Your task to perform on an android device: Clear the shopping cart on ebay.com. Search for "apple airpods" on ebay.com, select the first entry, add it to the cart, then select checkout. Image 0: 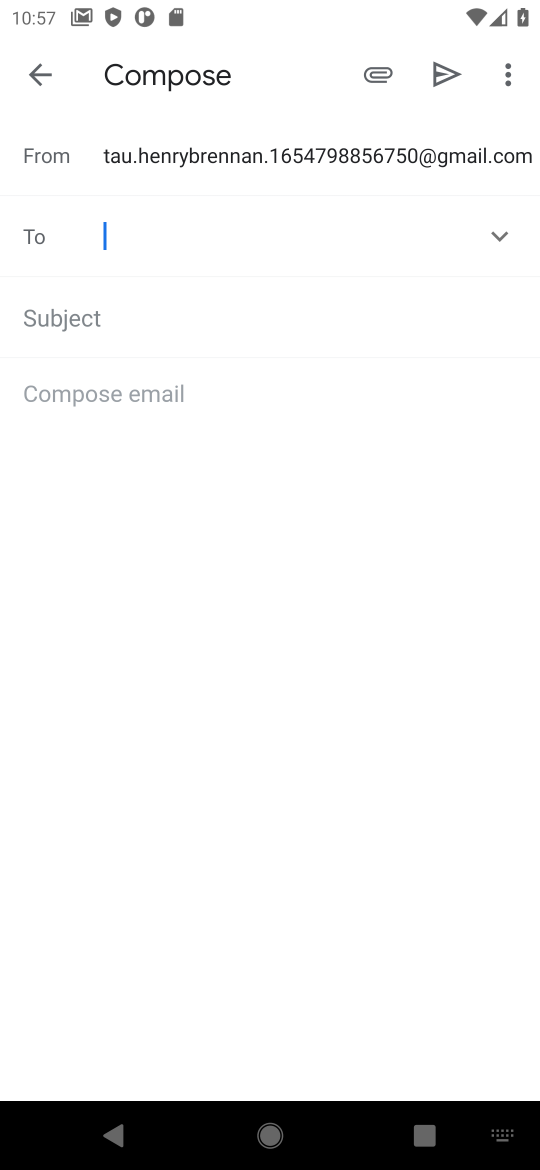
Step 0: press home button
Your task to perform on an android device: Clear the shopping cart on ebay.com. Search for "apple airpods" on ebay.com, select the first entry, add it to the cart, then select checkout. Image 1: 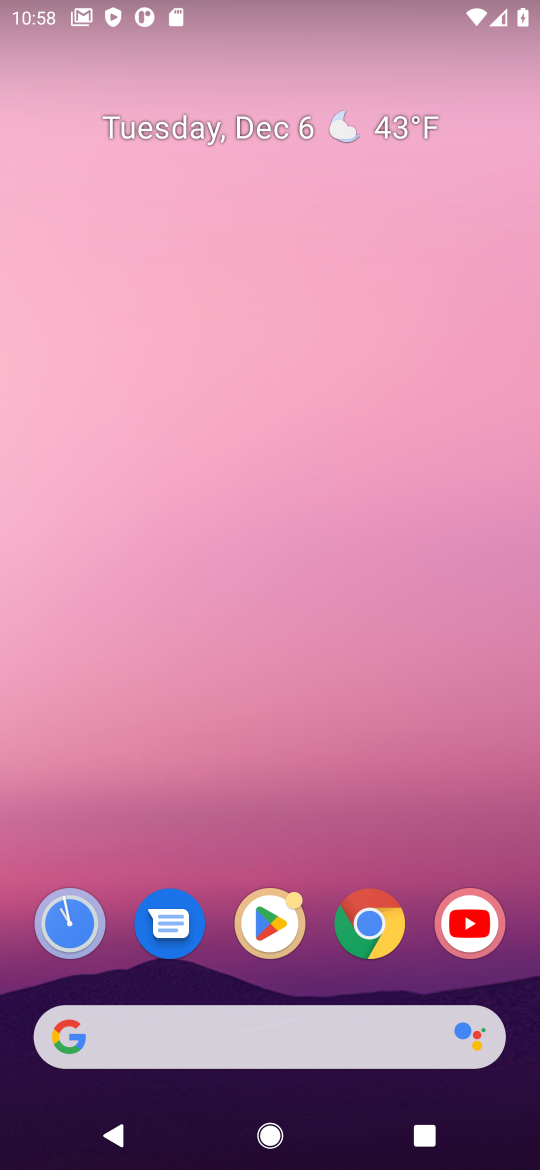
Step 1: click (371, 912)
Your task to perform on an android device: Clear the shopping cart on ebay.com. Search for "apple airpods" on ebay.com, select the first entry, add it to the cart, then select checkout. Image 2: 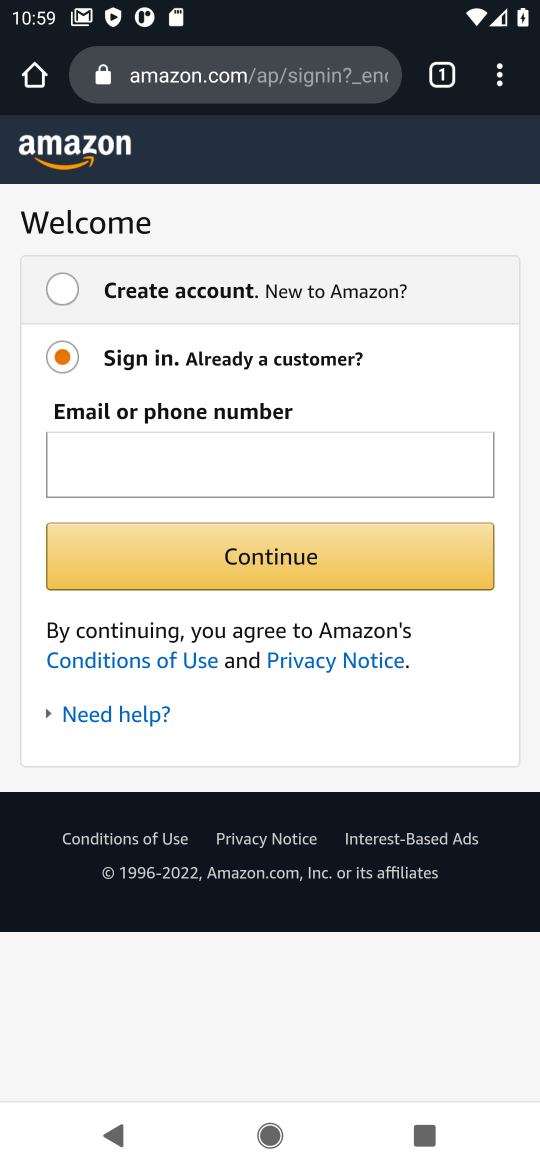
Step 2: click (281, 63)
Your task to perform on an android device: Clear the shopping cart on ebay.com. Search for "apple airpods" on ebay.com, select the first entry, add it to the cart, then select checkout. Image 3: 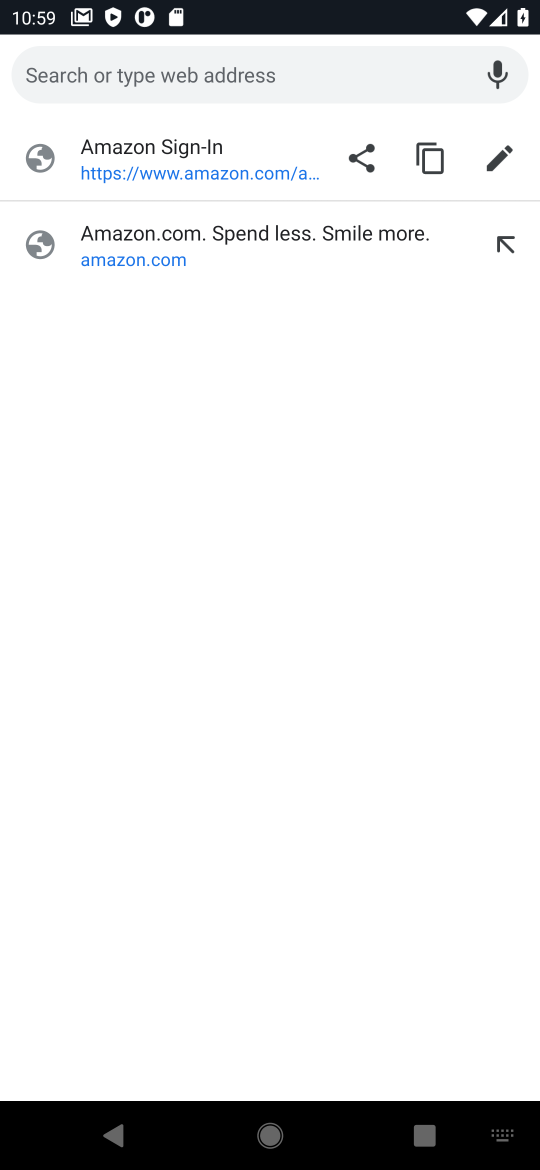
Step 3: type "EBAY"
Your task to perform on an android device: Clear the shopping cart on ebay.com. Search for "apple airpods" on ebay.com, select the first entry, add it to the cart, then select checkout. Image 4: 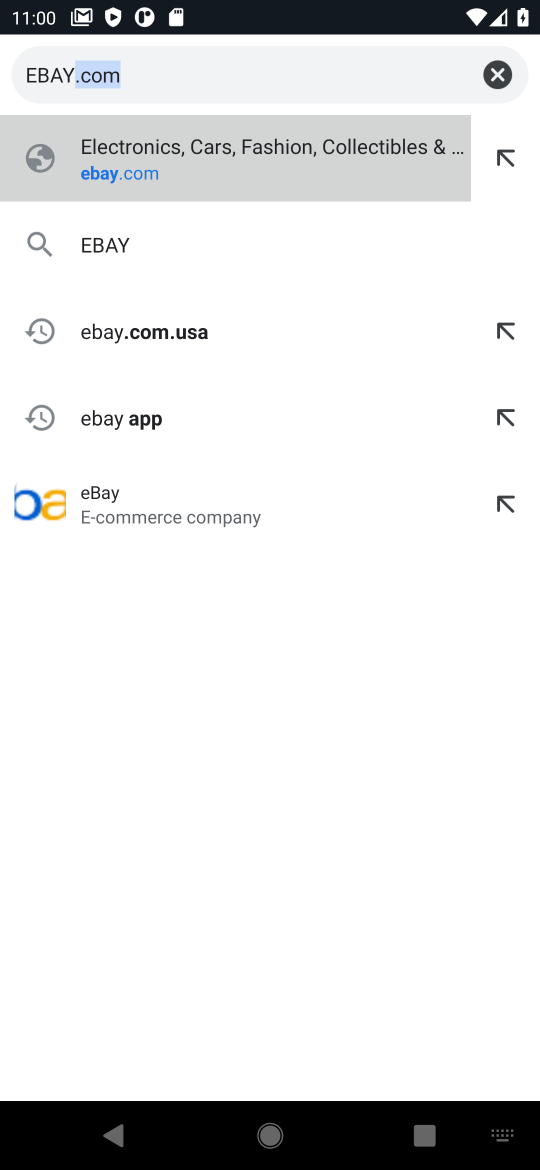
Step 4: click (109, 174)
Your task to perform on an android device: Clear the shopping cart on ebay.com. Search for "apple airpods" on ebay.com, select the first entry, add it to the cart, then select checkout. Image 5: 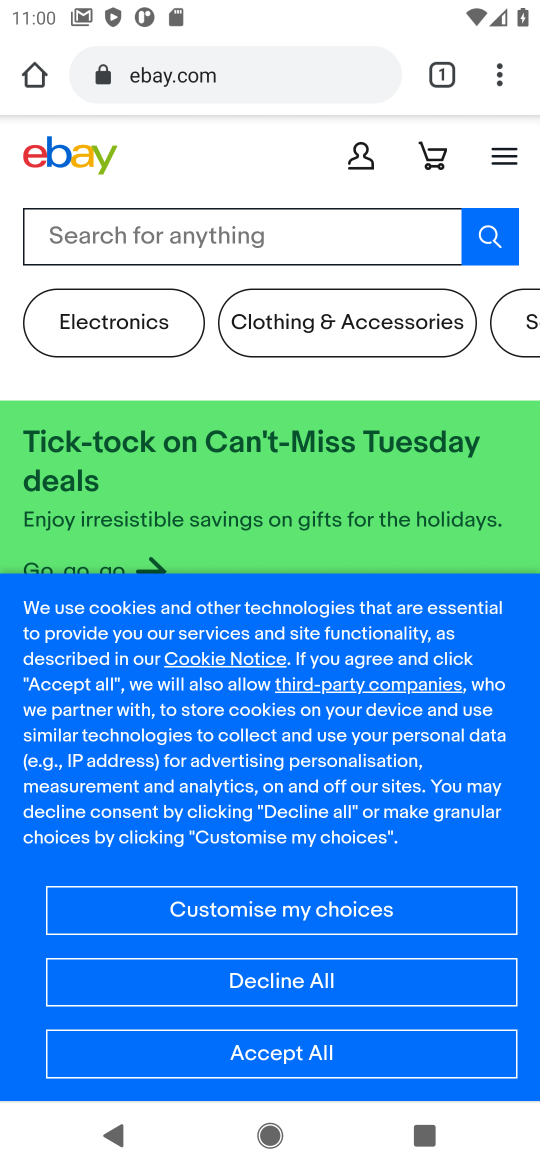
Step 5: click (284, 1059)
Your task to perform on an android device: Clear the shopping cart on ebay.com. Search for "apple airpods" on ebay.com, select the first entry, add it to the cart, then select checkout. Image 6: 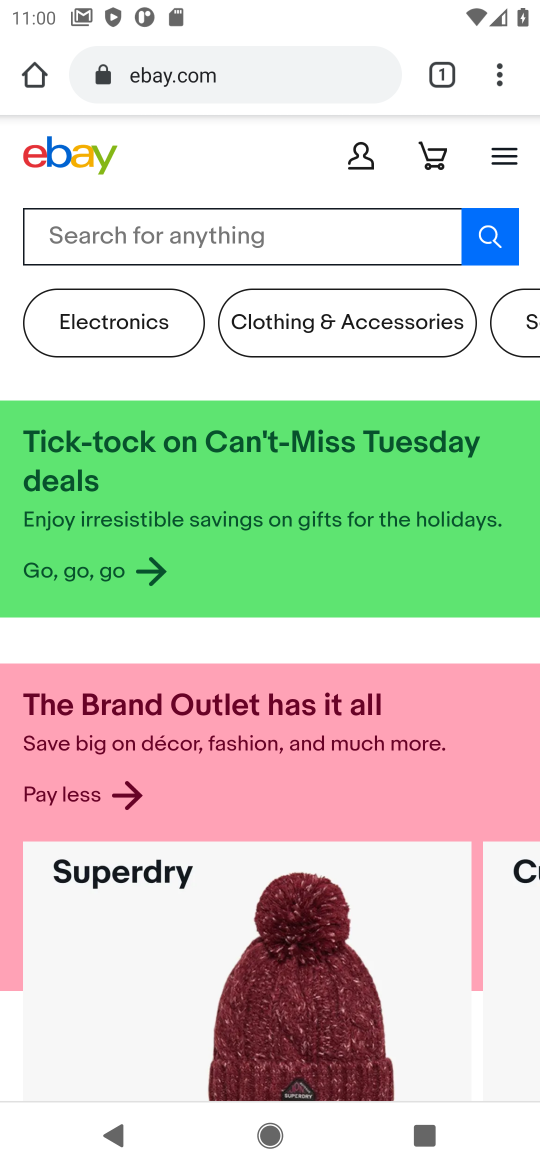
Step 6: click (424, 155)
Your task to perform on an android device: Clear the shopping cart on ebay.com. Search for "apple airpods" on ebay.com, select the first entry, add it to the cart, then select checkout. Image 7: 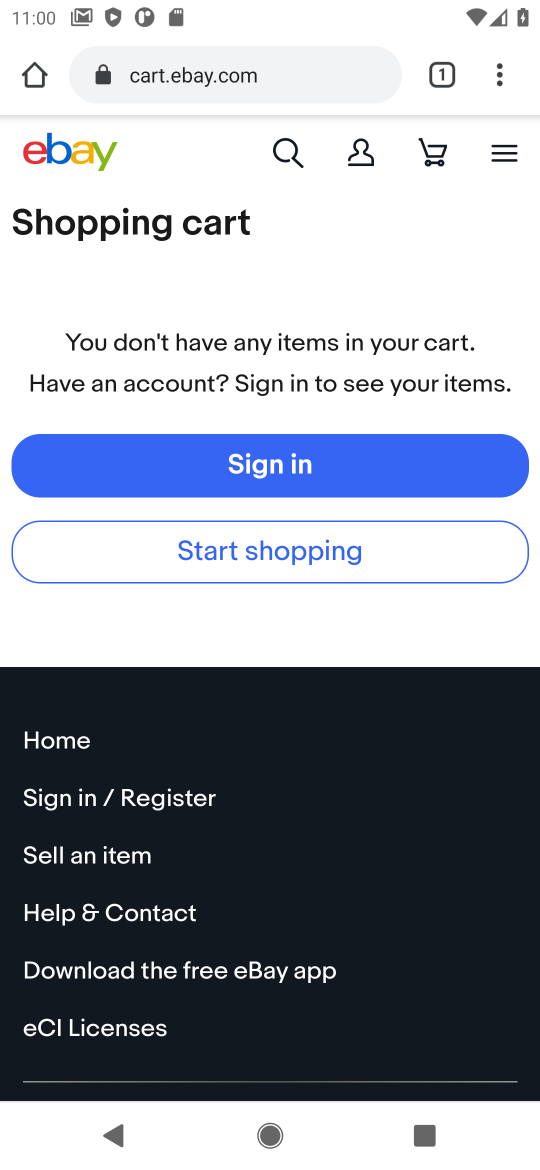
Step 7: click (286, 146)
Your task to perform on an android device: Clear the shopping cart on ebay.com. Search for "apple airpods" on ebay.com, select the first entry, add it to the cart, then select checkout. Image 8: 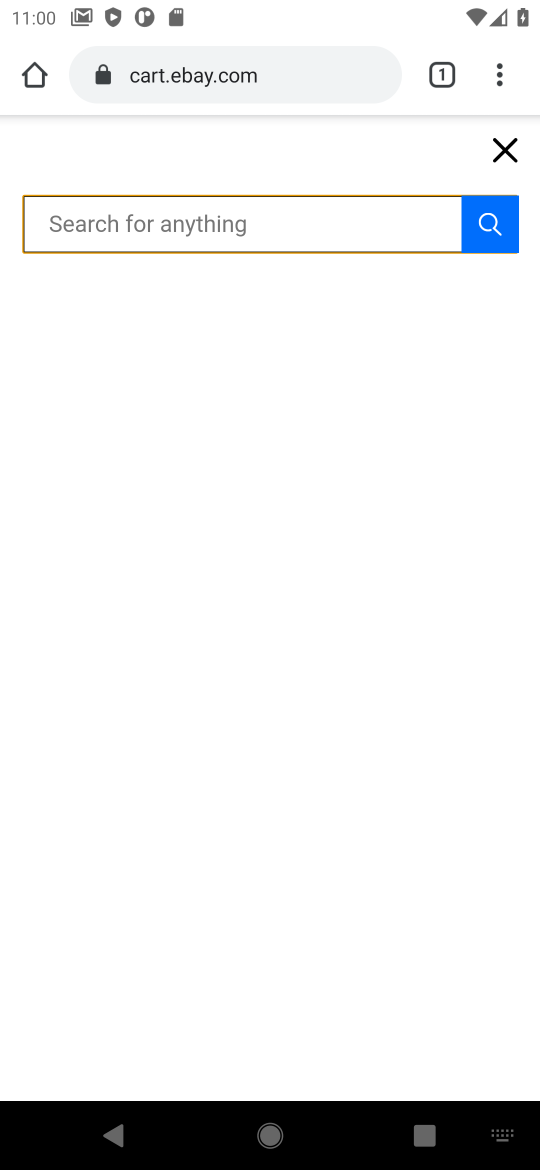
Step 8: type "apple airpods"
Your task to perform on an android device: Clear the shopping cart on ebay.com. Search for "apple airpods" on ebay.com, select the first entry, add it to the cart, then select checkout. Image 9: 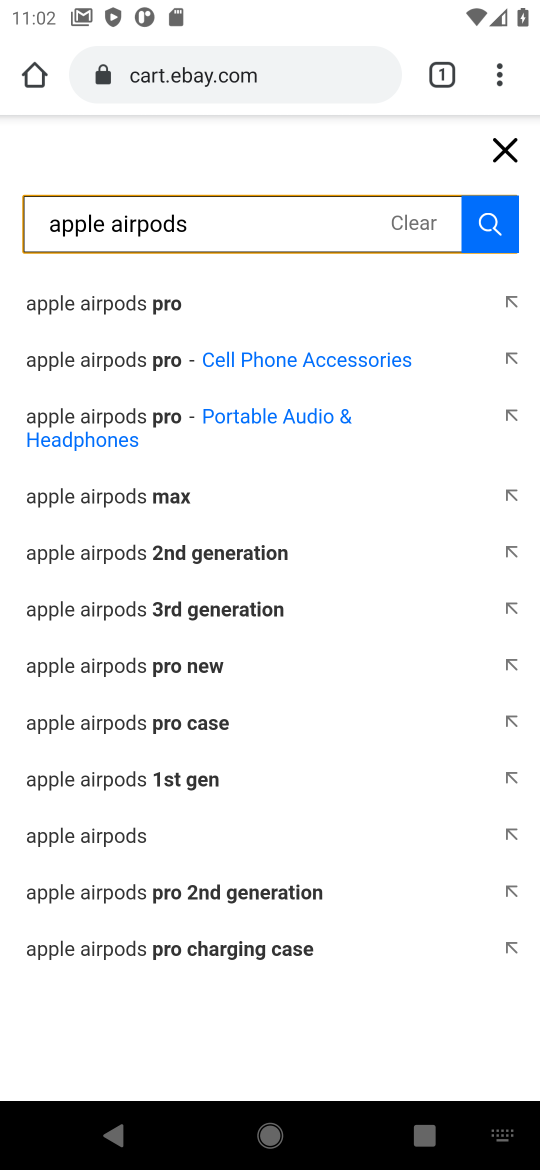
Step 9: click (115, 308)
Your task to perform on an android device: Clear the shopping cart on ebay.com. Search for "apple airpods" on ebay.com, select the first entry, add it to the cart, then select checkout. Image 10: 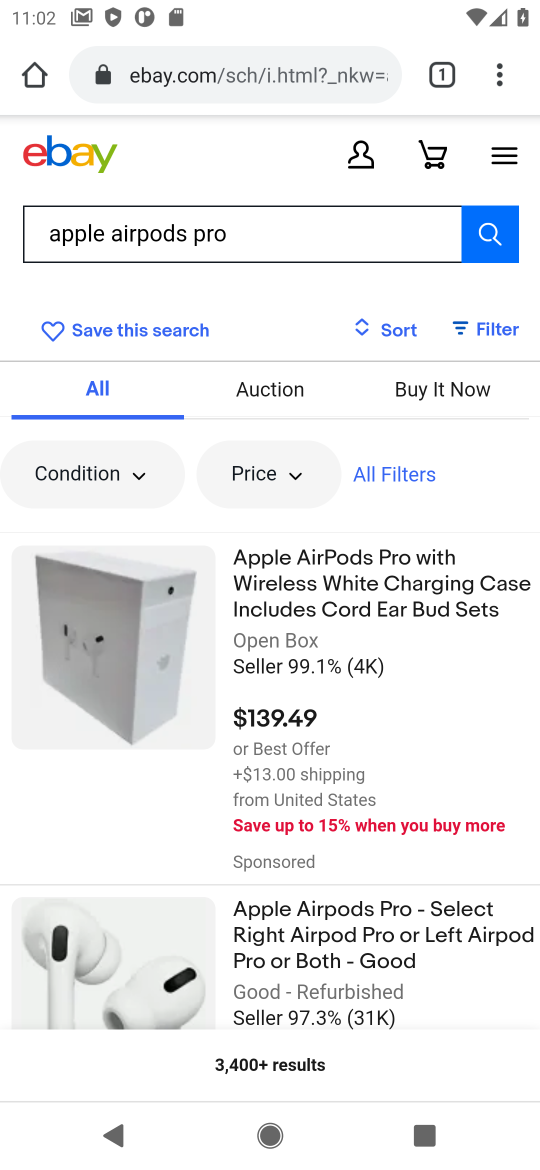
Step 10: click (189, 659)
Your task to perform on an android device: Clear the shopping cart on ebay.com. Search for "apple airpods" on ebay.com, select the first entry, add it to the cart, then select checkout. Image 11: 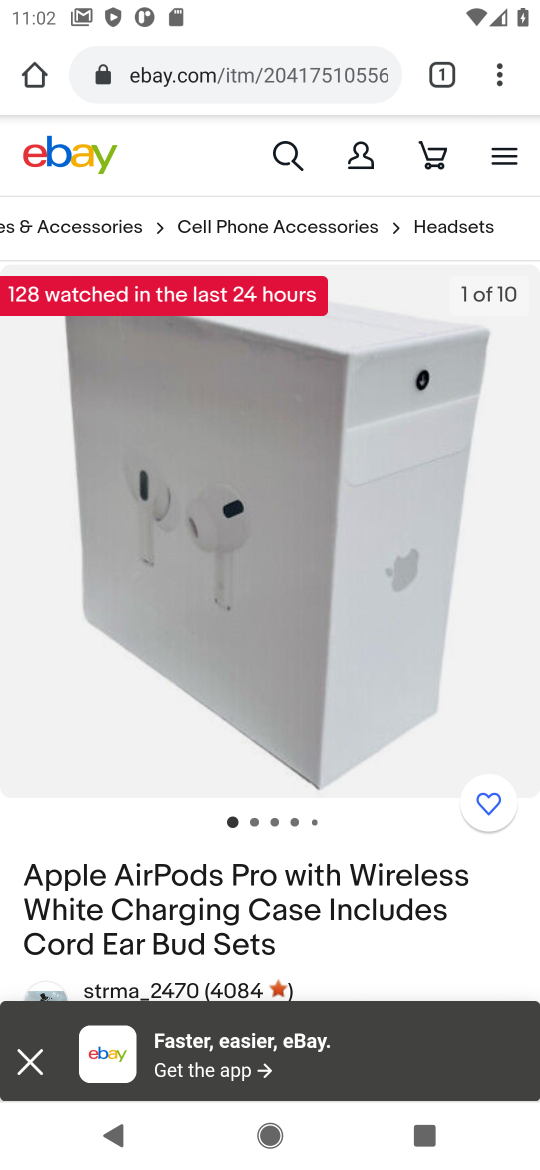
Step 11: drag from (399, 994) to (327, 264)
Your task to perform on an android device: Clear the shopping cart on ebay.com. Search for "apple airpods" on ebay.com, select the first entry, add it to the cart, then select checkout. Image 12: 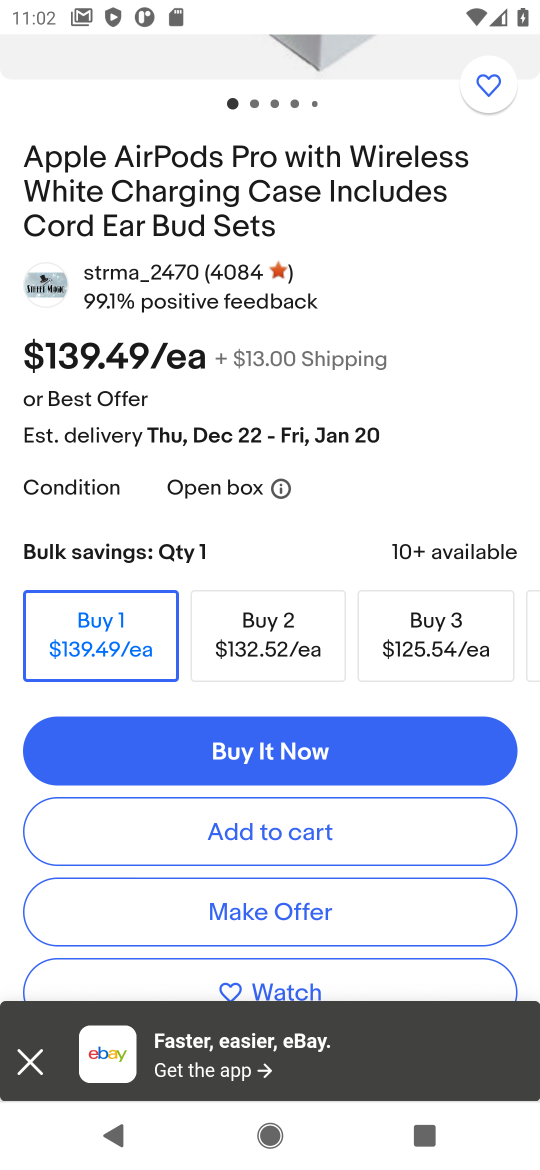
Step 12: click (271, 825)
Your task to perform on an android device: Clear the shopping cart on ebay.com. Search for "apple airpods" on ebay.com, select the first entry, add it to the cart, then select checkout. Image 13: 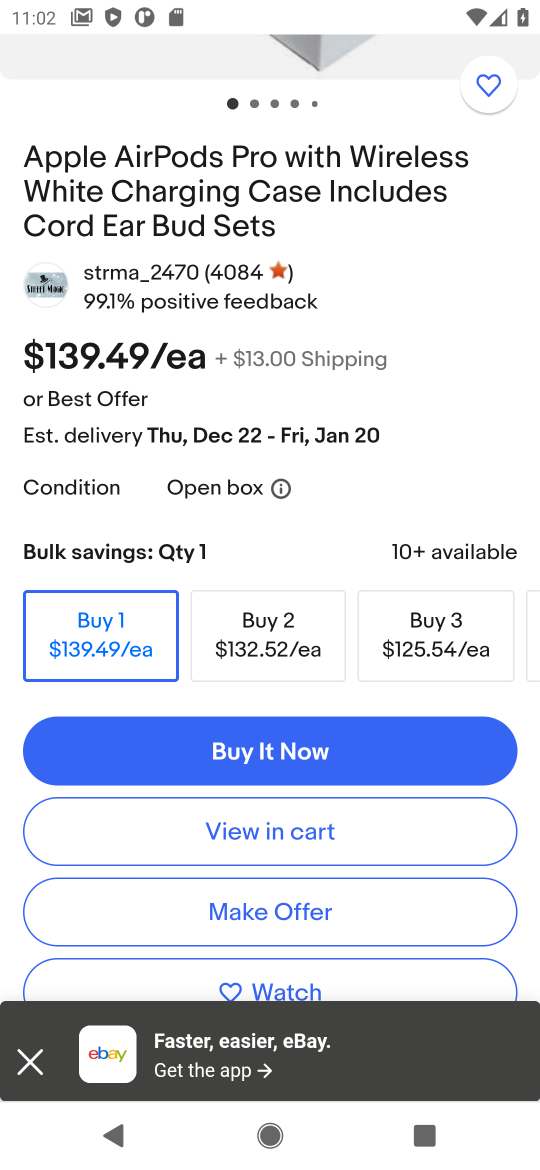
Step 13: click (271, 825)
Your task to perform on an android device: Clear the shopping cart on ebay.com. Search for "apple airpods" on ebay.com, select the first entry, add it to the cart, then select checkout. Image 14: 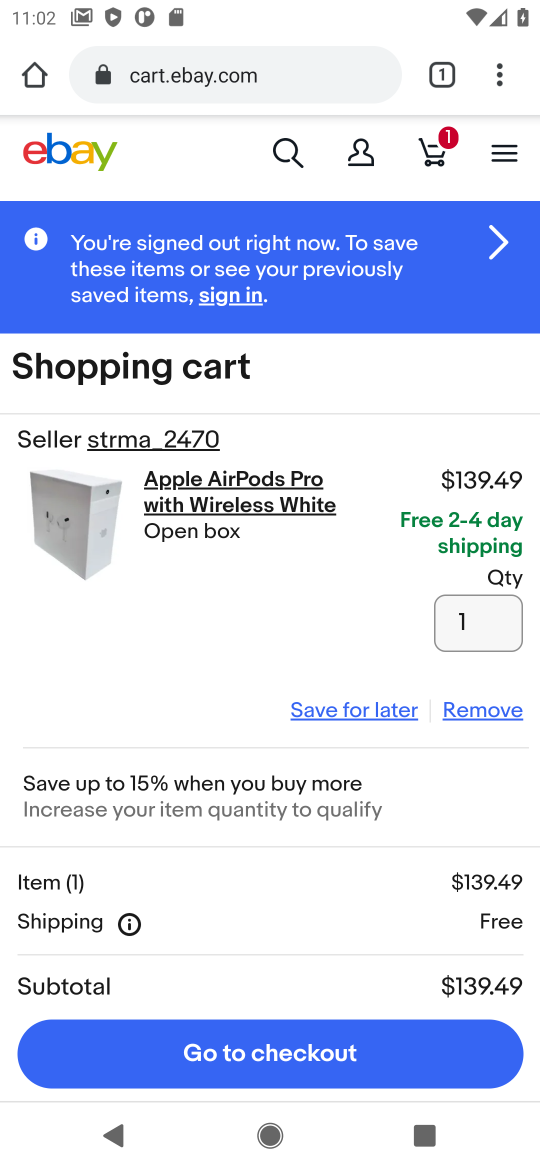
Step 14: click (275, 1043)
Your task to perform on an android device: Clear the shopping cart on ebay.com. Search for "apple airpods" on ebay.com, select the first entry, add it to the cart, then select checkout. Image 15: 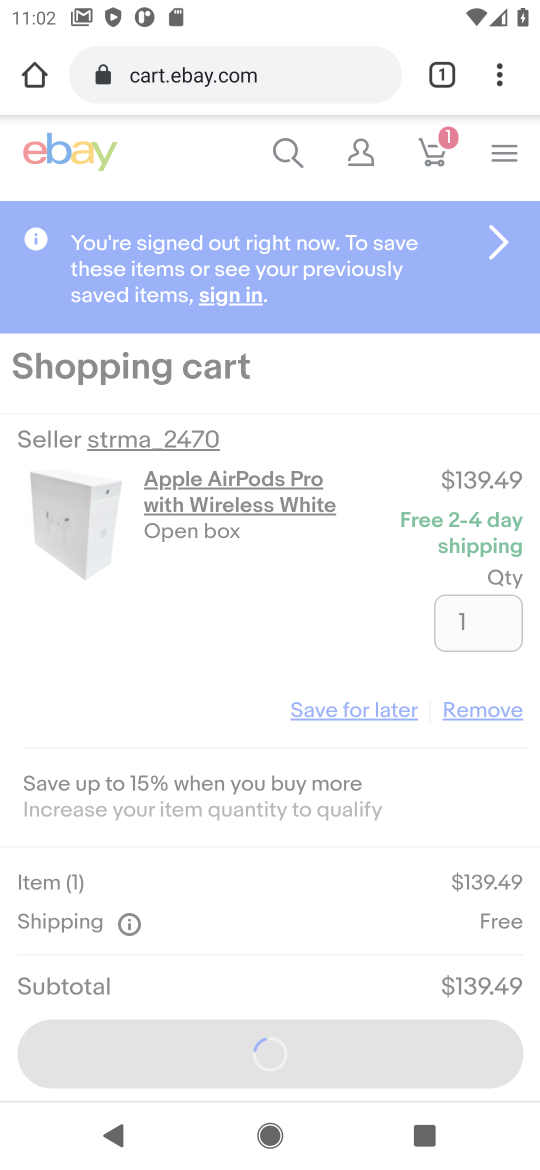
Step 15: task complete